Your task to perform on an android device: Turn on the flashlight Image 0: 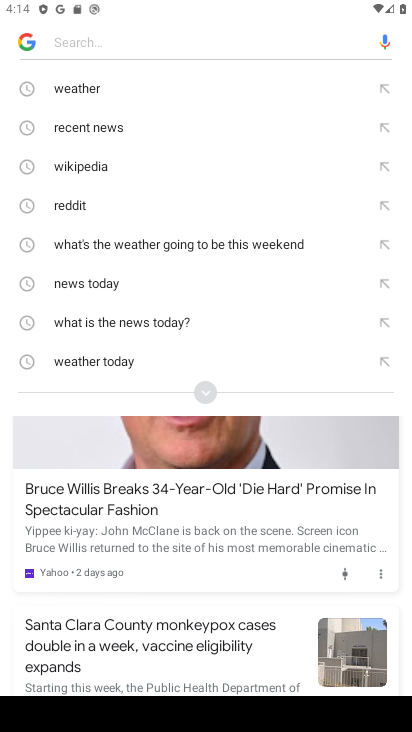
Step 0: press home button
Your task to perform on an android device: Turn on the flashlight Image 1: 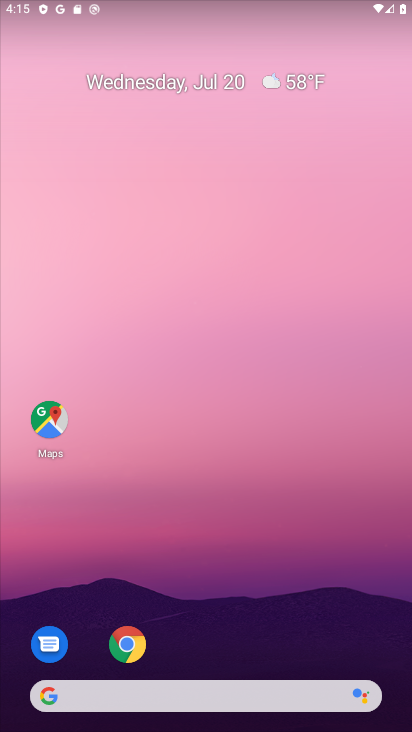
Step 1: task complete